Your task to perform on an android device: Show me productivity apps on the Play Store Image 0: 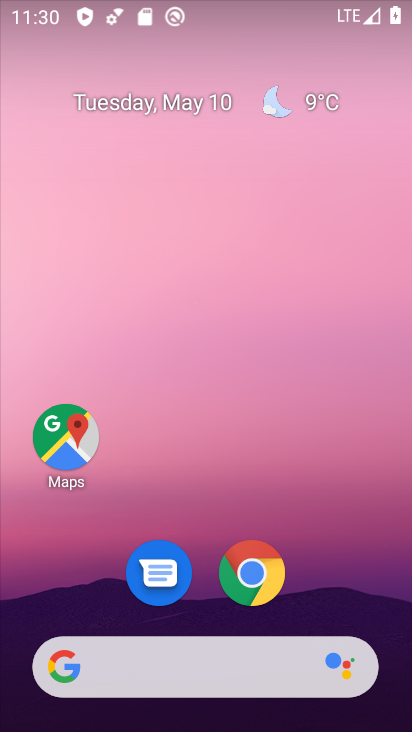
Step 0: press home button
Your task to perform on an android device: Show me productivity apps on the Play Store Image 1: 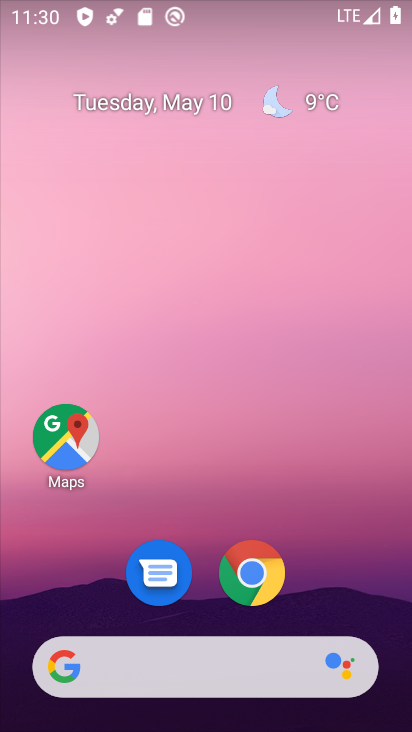
Step 1: drag from (187, 686) to (321, 235)
Your task to perform on an android device: Show me productivity apps on the Play Store Image 2: 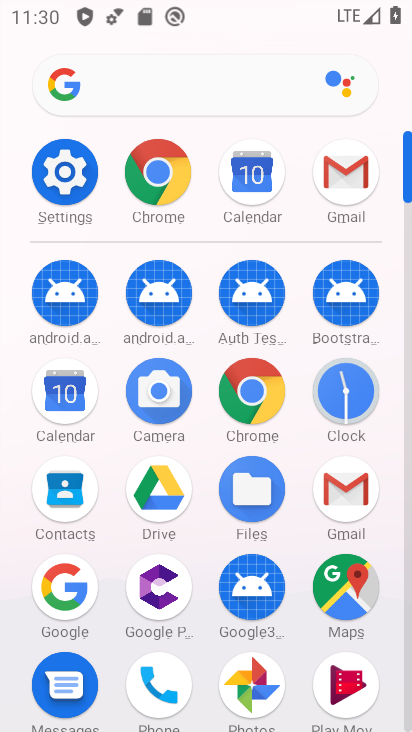
Step 2: drag from (199, 619) to (327, 272)
Your task to perform on an android device: Show me productivity apps on the Play Store Image 3: 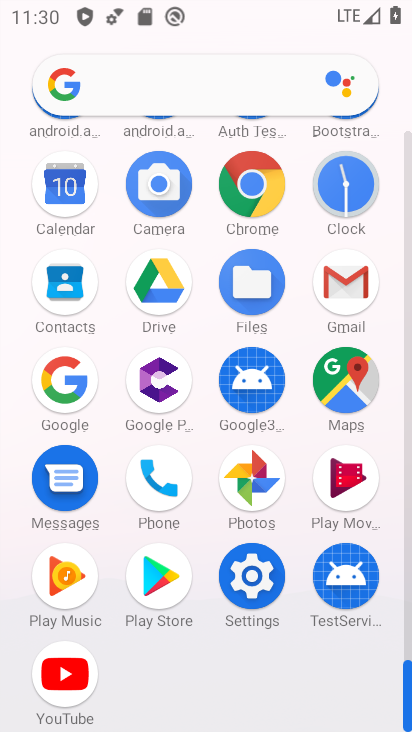
Step 3: click (170, 585)
Your task to perform on an android device: Show me productivity apps on the Play Store Image 4: 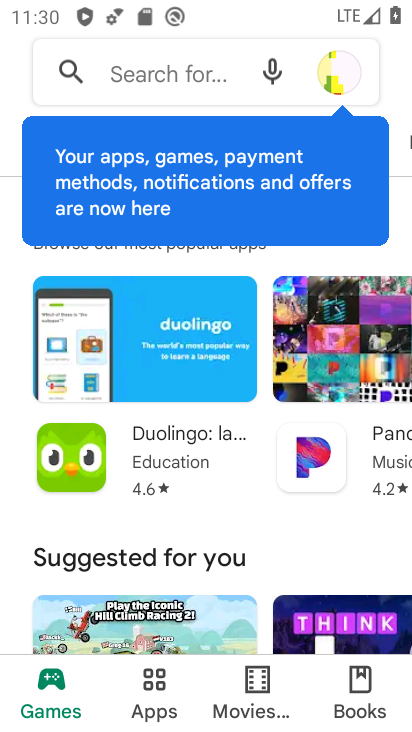
Step 4: click (152, 685)
Your task to perform on an android device: Show me productivity apps on the Play Store Image 5: 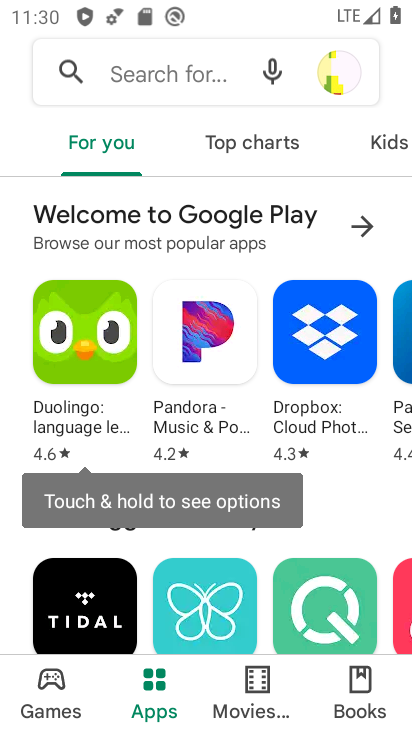
Step 5: drag from (342, 137) to (131, 184)
Your task to perform on an android device: Show me productivity apps on the Play Store Image 6: 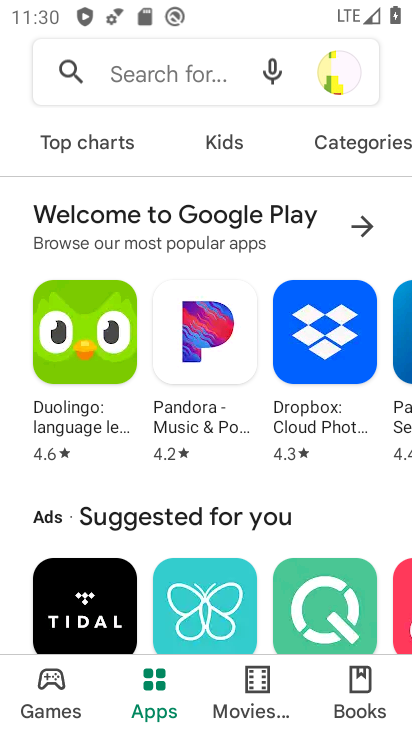
Step 6: click (334, 145)
Your task to perform on an android device: Show me productivity apps on the Play Store Image 7: 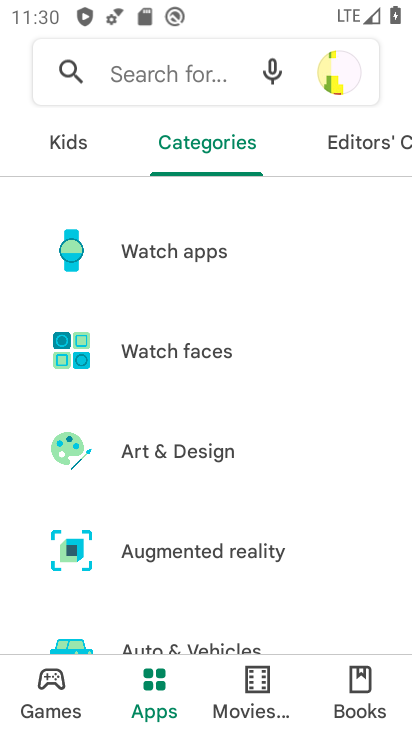
Step 7: drag from (253, 584) to (410, 63)
Your task to perform on an android device: Show me productivity apps on the Play Store Image 8: 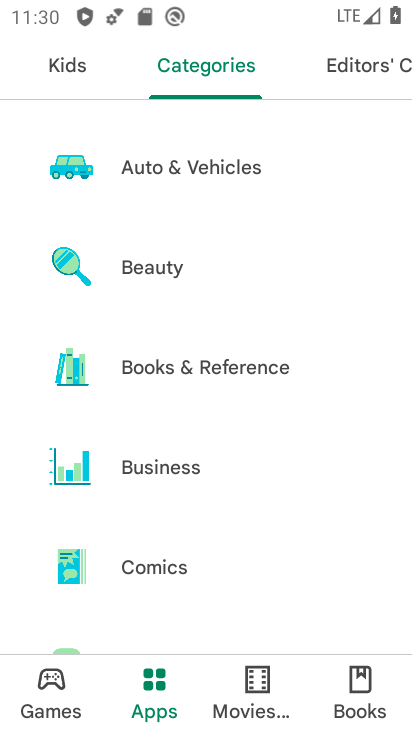
Step 8: drag from (190, 584) to (346, 144)
Your task to perform on an android device: Show me productivity apps on the Play Store Image 9: 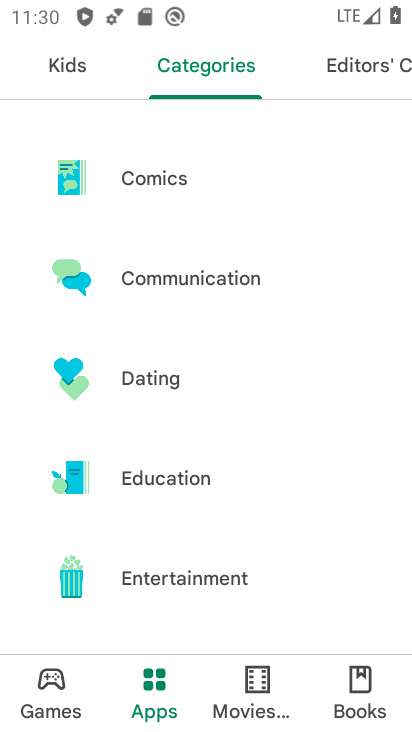
Step 9: drag from (215, 614) to (309, 190)
Your task to perform on an android device: Show me productivity apps on the Play Store Image 10: 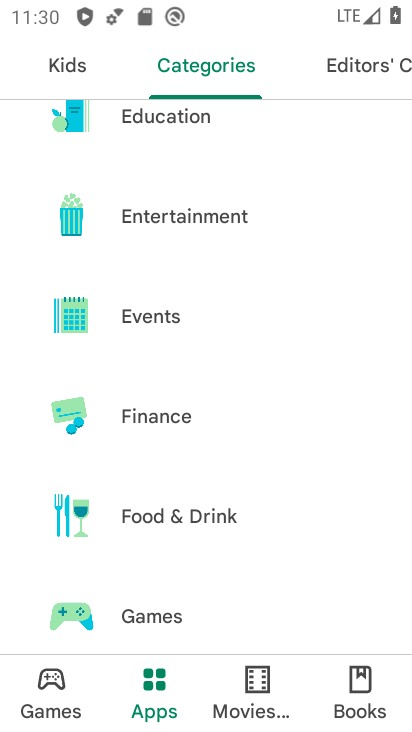
Step 10: drag from (205, 584) to (300, 144)
Your task to perform on an android device: Show me productivity apps on the Play Store Image 11: 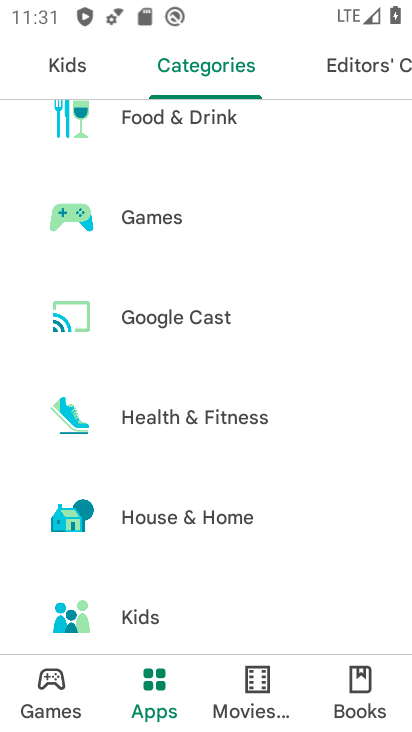
Step 11: drag from (225, 571) to (329, 152)
Your task to perform on an android device: Show me productivity apps on the Play Store Image 12: 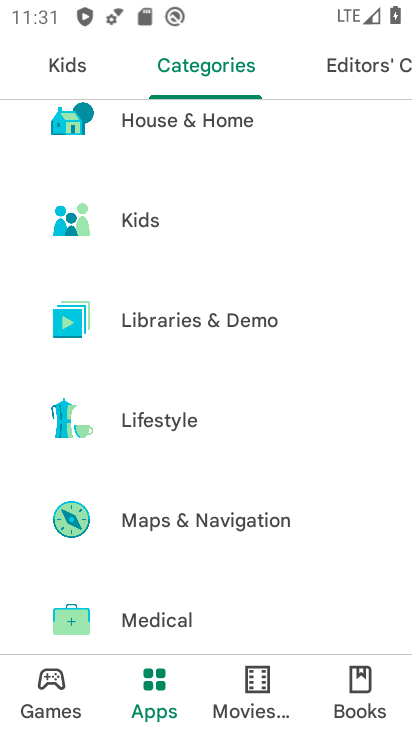
Step 12: drag from (278, 495) to (365, 190)
Your task to perform on an android device: Show me productivity apps on the Play Store Image 13: 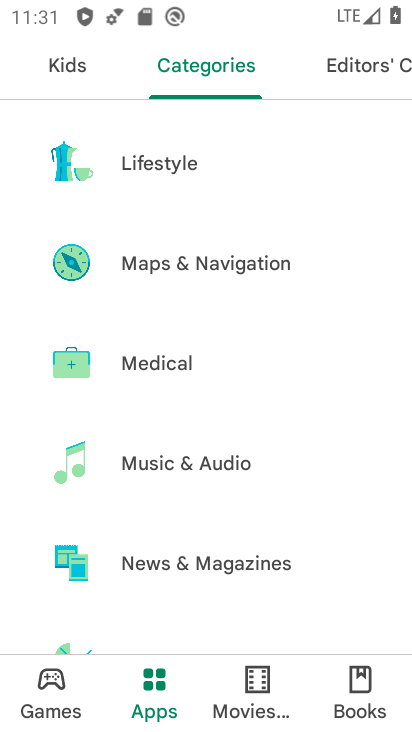
Step 13: drag from (243, 618) to (325, 259)
Your task to perform on an android device: Show me productivity apps on the Play Store Image 14: 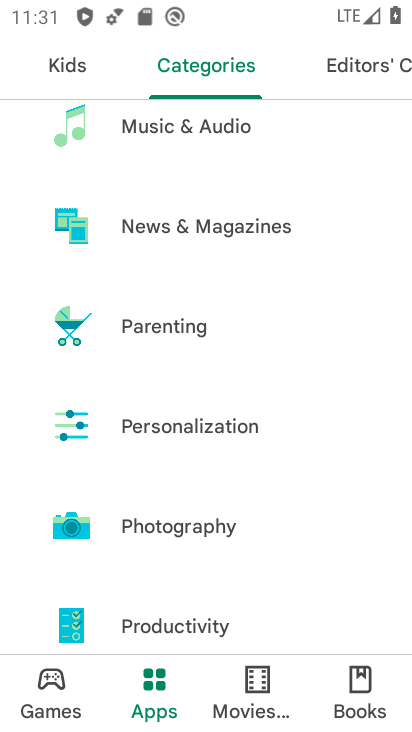
Step 14: drag from (234, 575) to (338, 319)
Your task to perform on an android device: Show me productivity apps on the Play Store Image 15: 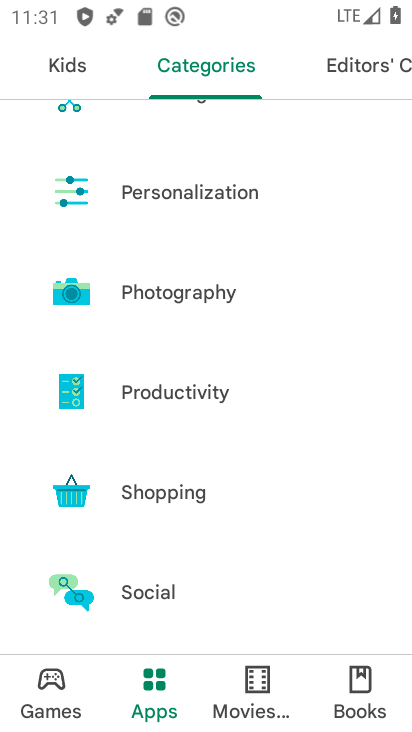
Step 15: click (211, 394)
Your task to perform on an android device: Show me productivity apps on the Play Store Image 16: 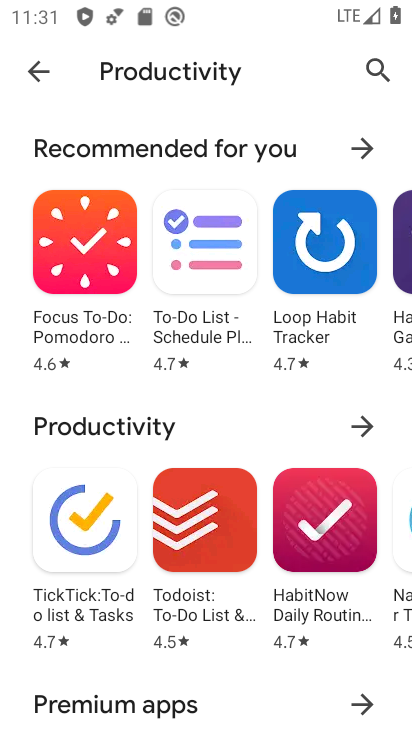
Step 16: task complete